Your task to perform on an android device: Search for seafood restaurants on Google Maps Image 0: 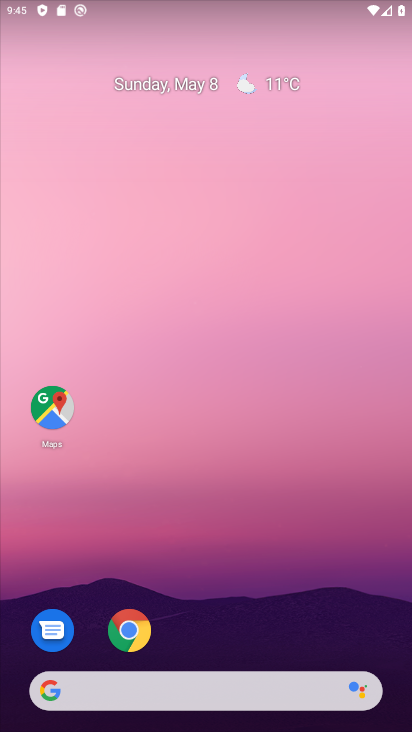
Step 0: drag from (370, 635) to (256, 29)
Your task to perform on an android device: Search for seafood restaurants on Google Maps Image 1: 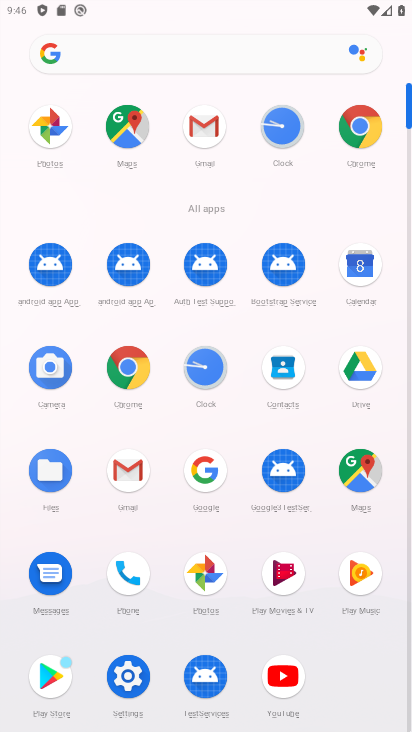
Step 1: click (360, 501)
Your task to perform on an android device: Search for seafood restaurants on Google Maps Image 2: 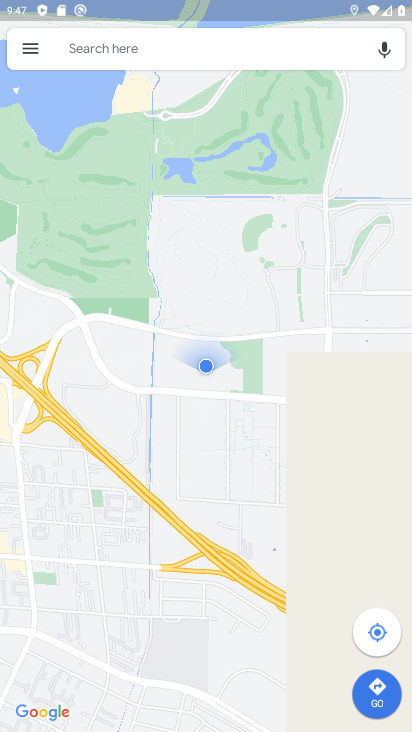
Step 2: click (138, 55)
Your task to perform on an android device: Search for seafood restaurants on Google Maps Image 3: 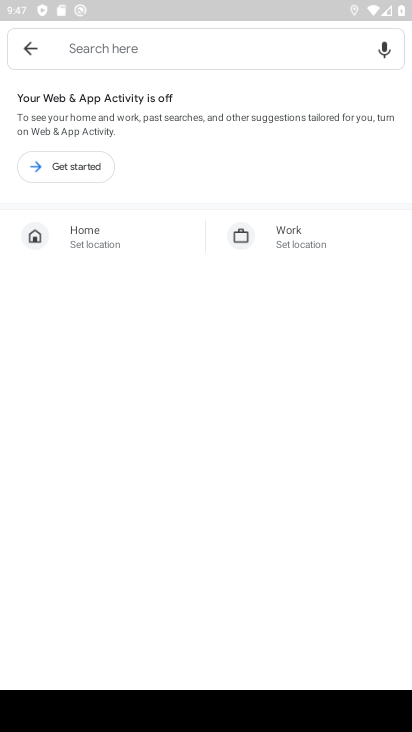
Step 3: click (58, 172)
Your task to perform on an android device: Search for seafood restaurants on Google Maps Image 4: 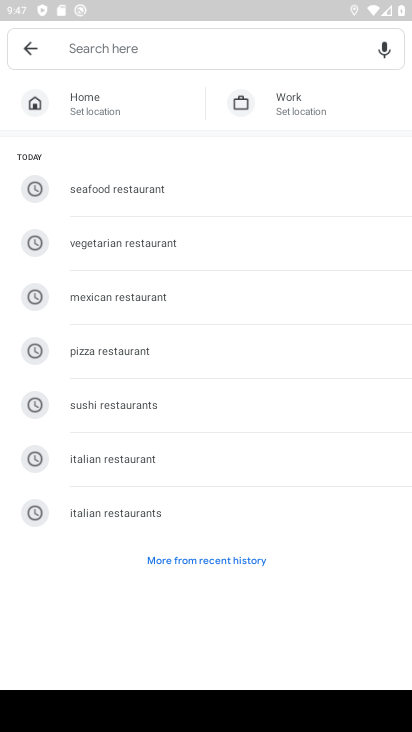
Step 4: click (92, 191)
Your task to perform on an android device: Search for seafood restaurants on Google Maps Image 5: 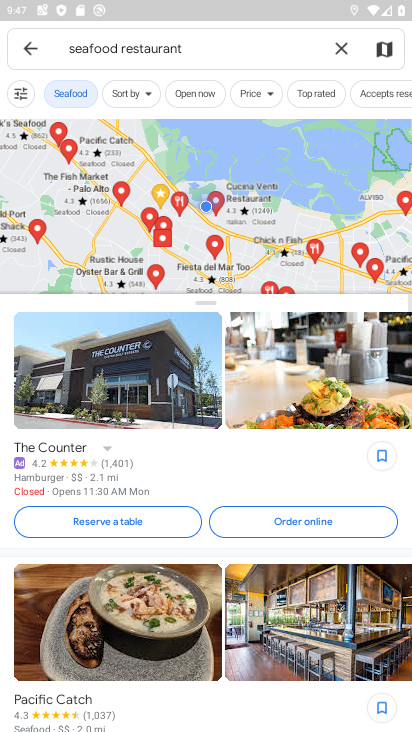
Step 5: task complete